Your task to perform on an android device: empty trash in google photos Image 0: 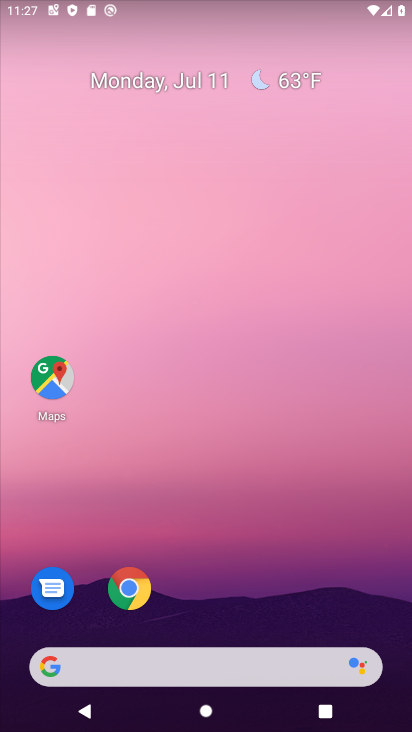
Step 0: drag from (247, 718) to (212, 27)
Your task to perform on an android device: empty trash in google photos Image 1: 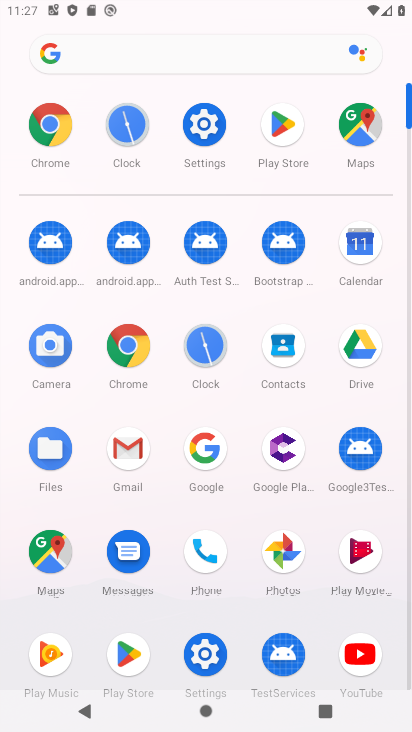
Step 1: click (285, 551)
Your task to perform on an android device: empty trash in google photos Image 2: 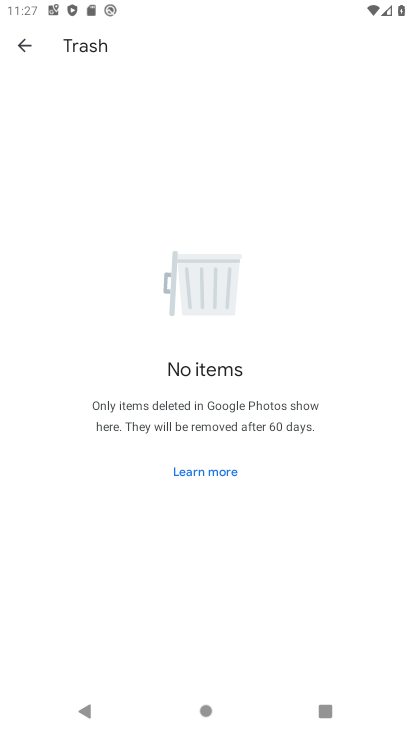
Step 2: task complete